Your task to perform on an android device: Open Google Image 0: 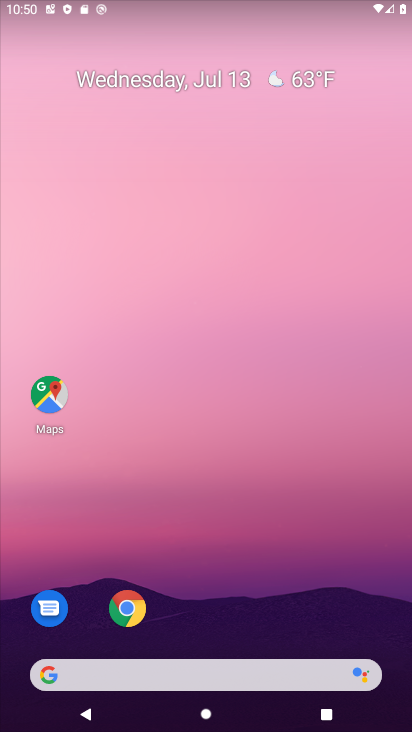
Step 0: press home button
Your task to perform on an android device: Open Google Image 1: 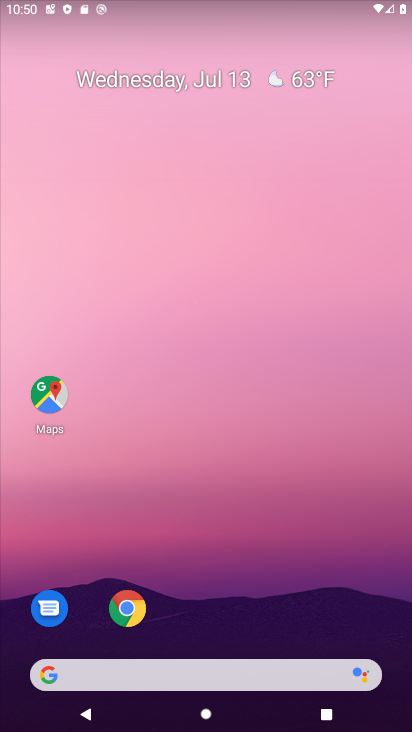
Step 1: drag from (250, 592) to (294, 154)
Your task to perform on an android device: Open Google Image 2: 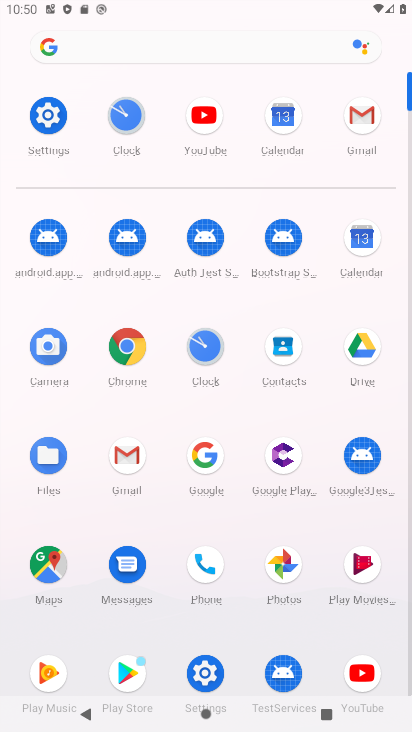
Step 2: click (208, 456)
Your task to perform on an android device: Open Google Image 3: 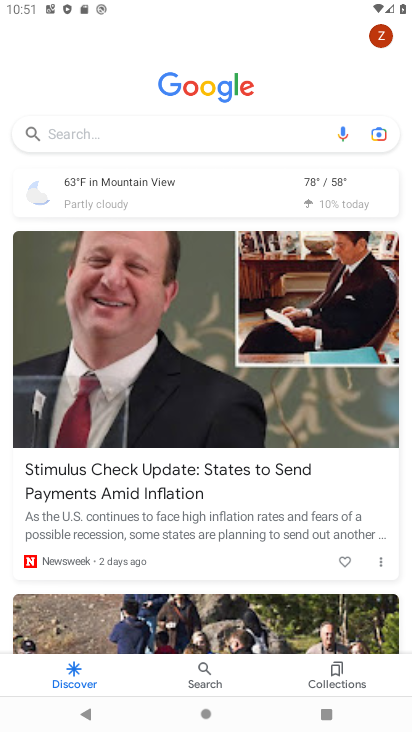
Step 3: task complete